Your task to perform on an android device: turn vacation reply on in the gmail app Image 0: 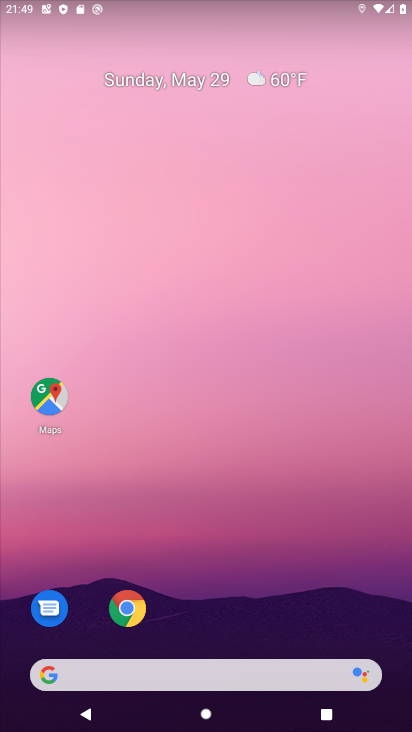
Step 0: drag from (371, 629) to (365, 246)
Your task to perform on an android device: turn vacation reply on in the gmail app Image 1: 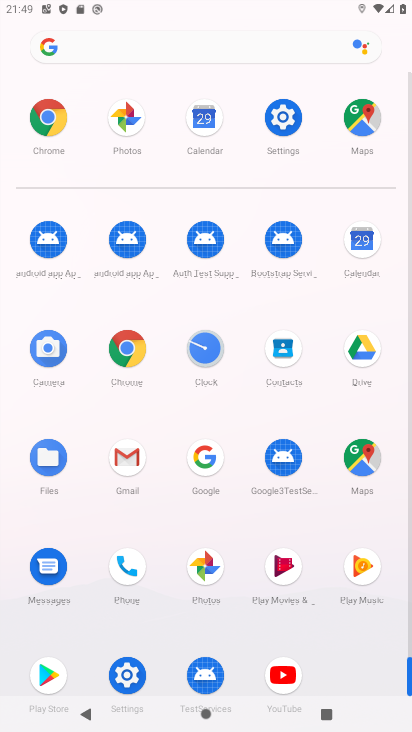
Step 1: click (143, 459)
Your task to perform on an android device: turn vacation reply on in the gmail app Image 2: 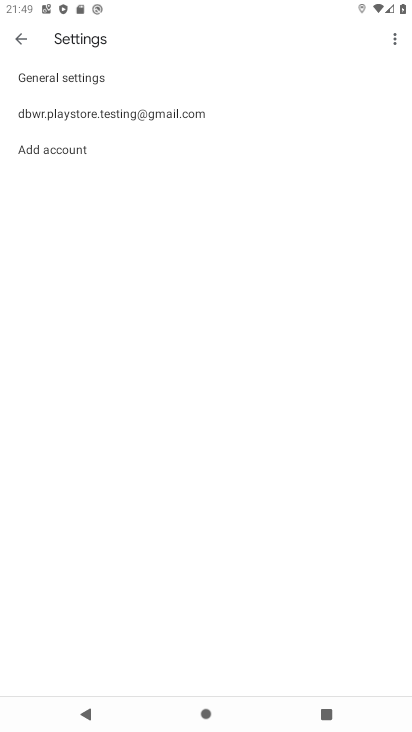
Step 2: click (207, 116)
Your task to perform on an android device: turn vacation reply on in the gmail app Image 3: 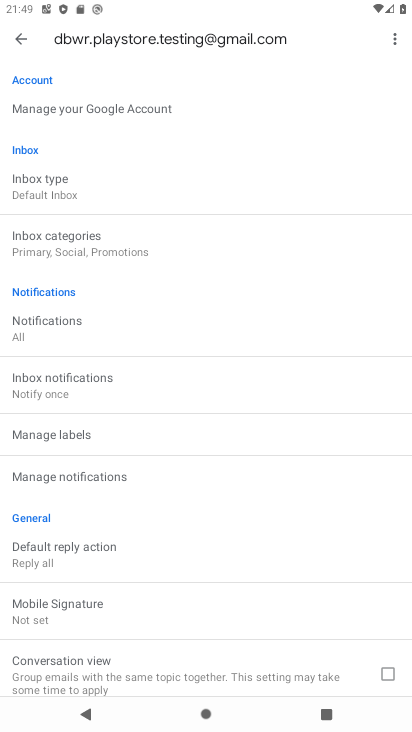
Step 3: drag from (273, 510) to (289, 412)
Your task to perform on an android device: turn vacation reply on in the gmail app Image 4: 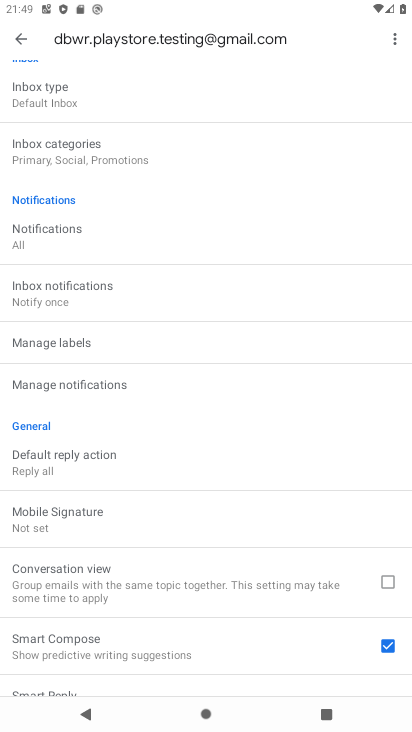
Step 4: drag from (284, 563) to (290, 440)
Your task to perform on an android device: turn vacation reply on in the gmail app Image 5: 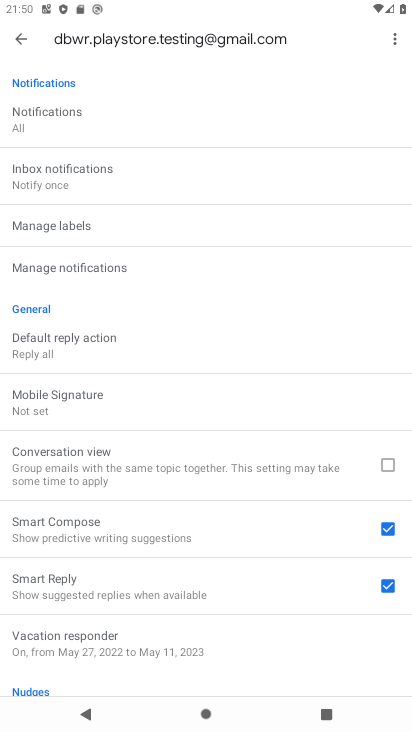
Step 5: drag from (281, 542) to (292, 443)
Your task to perform on an android device: turn vacation reply on in the gmail app Image 6: 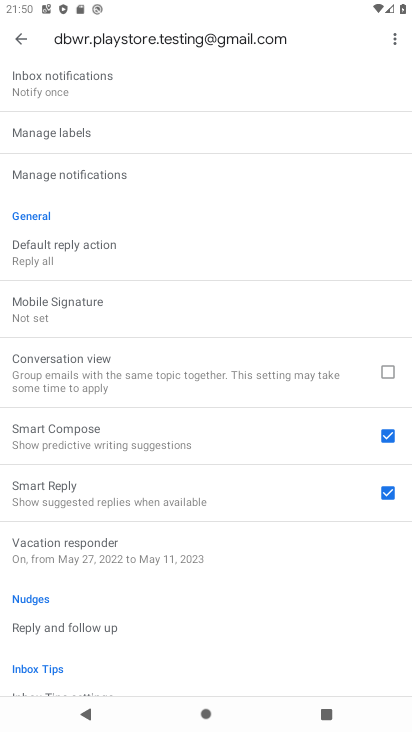
Step 6: drag from (293, 531) to (295, 429)
Your task to perform on an android device: turn vacation reply on in the gmail app Image 7: 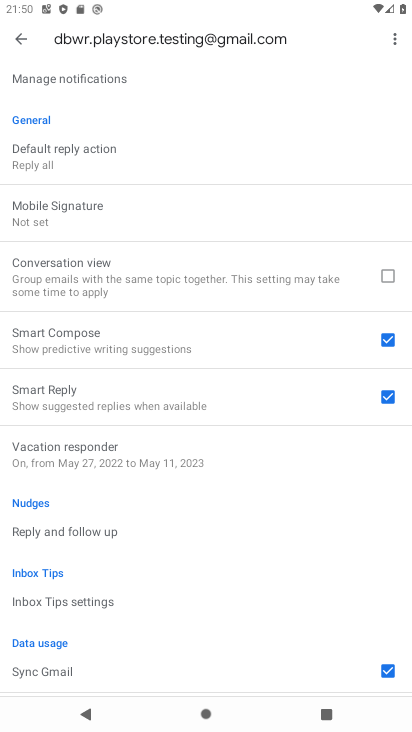
Step 7: click (223, 460)
Your task to perform on an android device: turn vacation reply on in the gmail app Image 8: 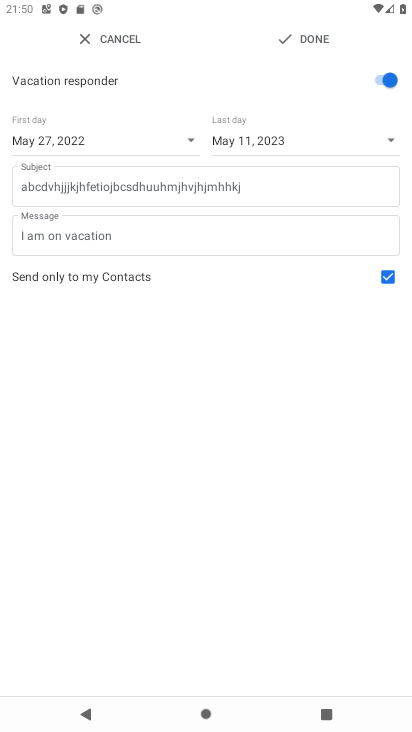
Step 8: task complete